Your task to perform on an android device: turn on priority inbox in the gmail app Image 0: 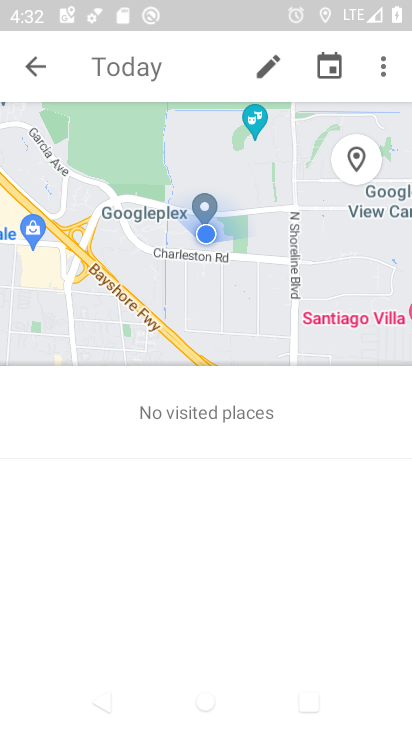
Step 0: press home button
Your task to perform on an android device: turn on priority inbox in the gmail app Image 1: 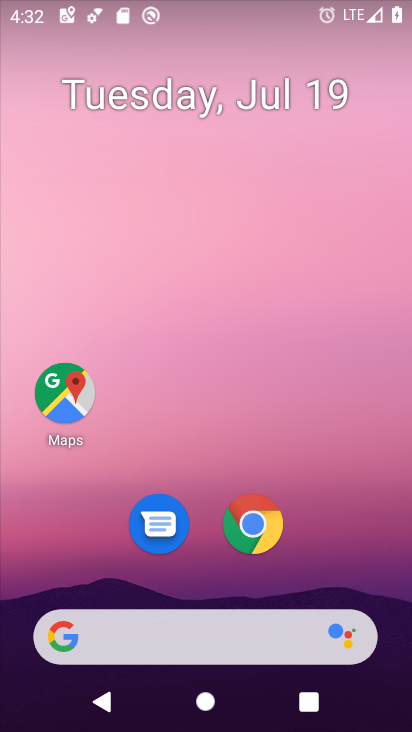
Step 1: drag from (314, 563) to (329, 255)
Your task to perform on an android device: turn on priority inbox in the gmail app Image 2: 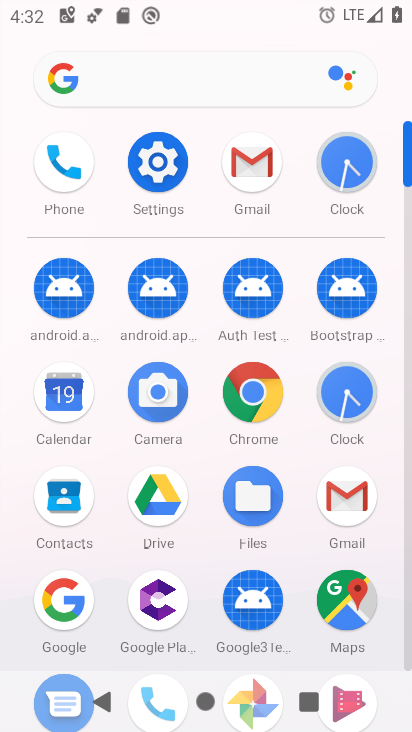
Step 2: click (237, 171)
Your task to perform on an android device: turn on priority inbox in the gmail app Image 3: 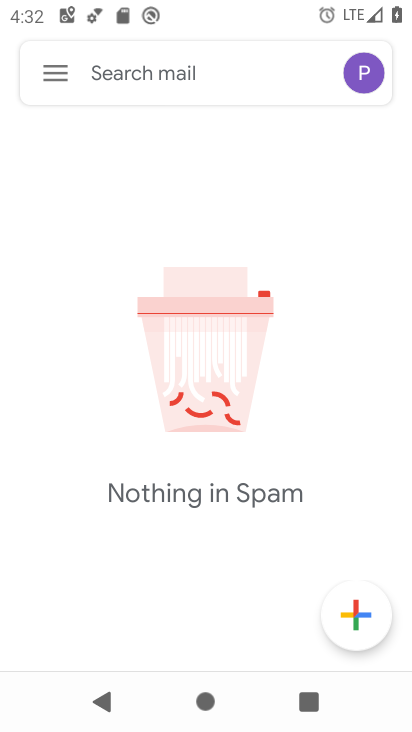
Step 3: click (56, 70)
Your task to perform on an android device: turn on priority inbox in the gmail app Image 4: 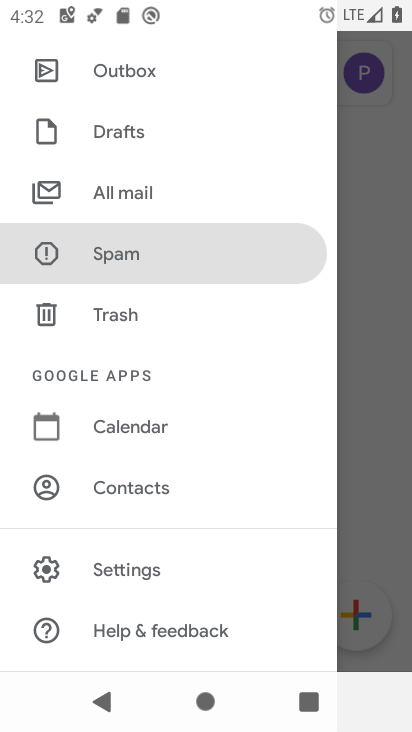
Step 4: click (122, 561)
Your task to perform on an android device: turn on priority inbox in the gmail app Image 5: 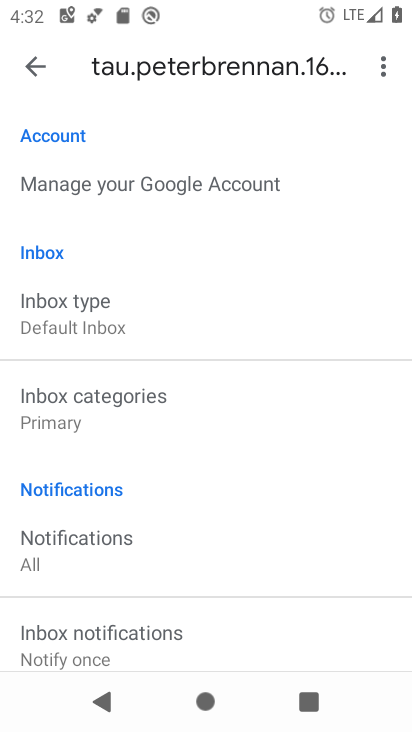
Step 5: click (96, 313)
Your task to perform on an android device: turn on priority inbox in the gmail app Image 6: 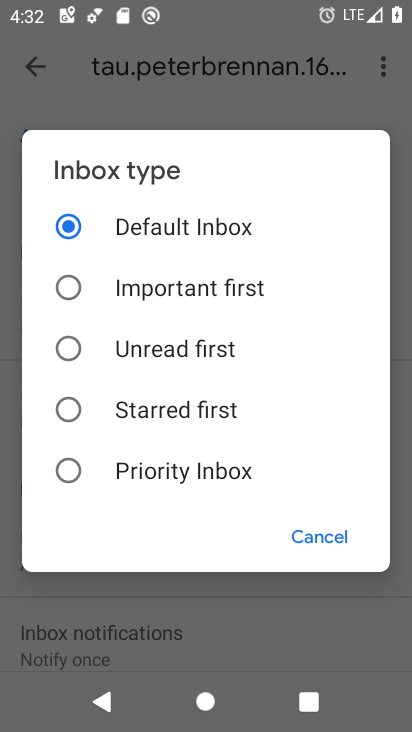
Step 6: click (66, 476)
Your task to perform on an android device: turn on priority inbox in the gmail app Image 7: 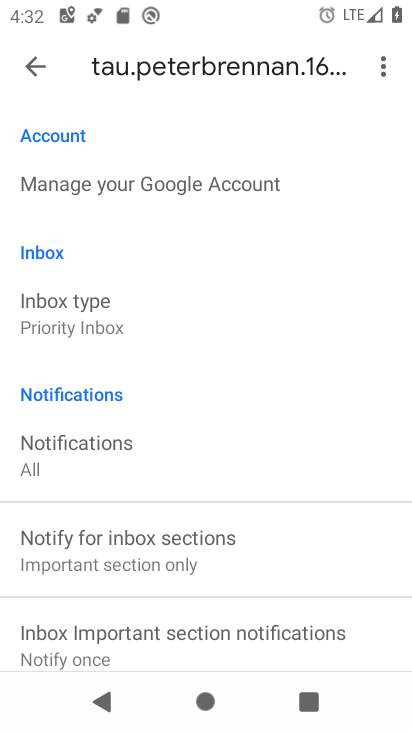
Step 7: task complete